Your task to perform on an android device: Show me popular videos on Youtube Image 0: 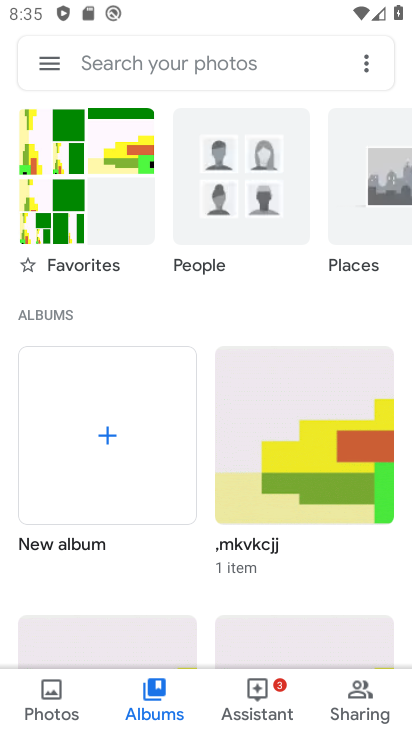
Step 0: press home button
Your task to perform on an android device: Show me popular videos on Youtube Image 1: 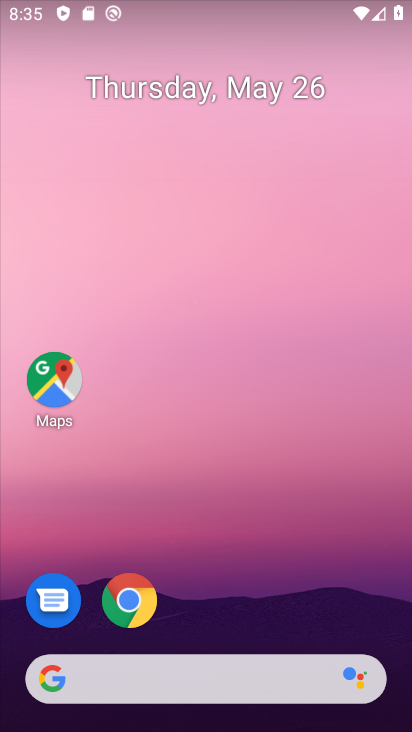
Step 1: drag from (217, 622) to (219, 246)
Your task to perform on an android device: Show me popular videos on Youtube Image 2: 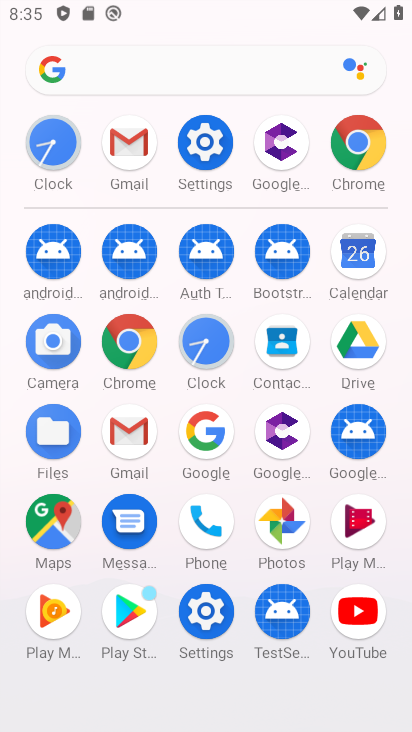
Step 2: click (368, 616)
Your task to perform on an android device: Show me popular videos on Youtube Image 3: 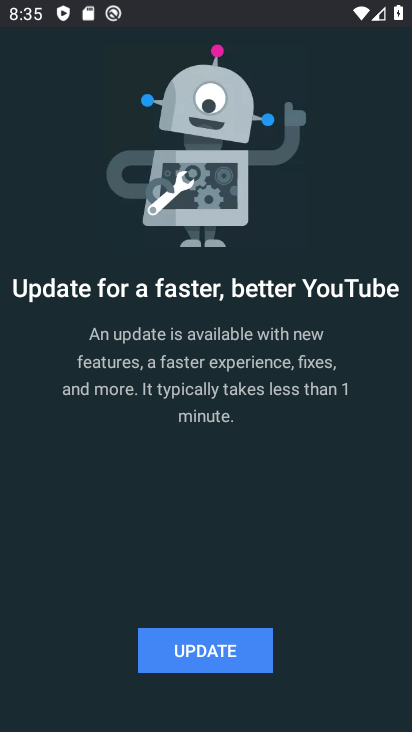
Step 3: click (239, 642)
Your task to perform on an android device: Show me popular videos on Youtube Image 4: 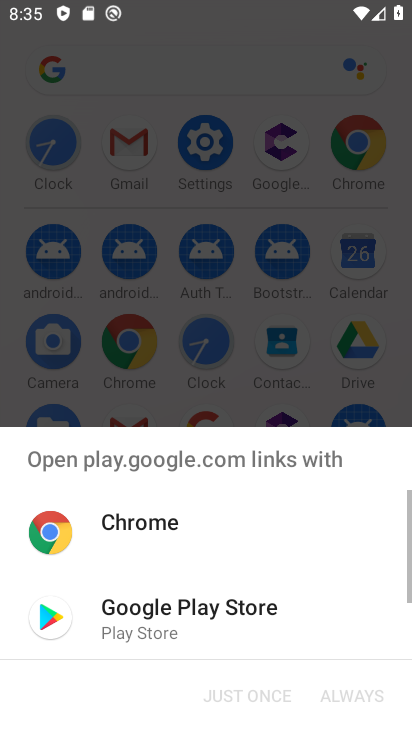
Step 4: click (211, 624)
Your task to perform on an android device: Show me popular videos on Youtube Image 5: 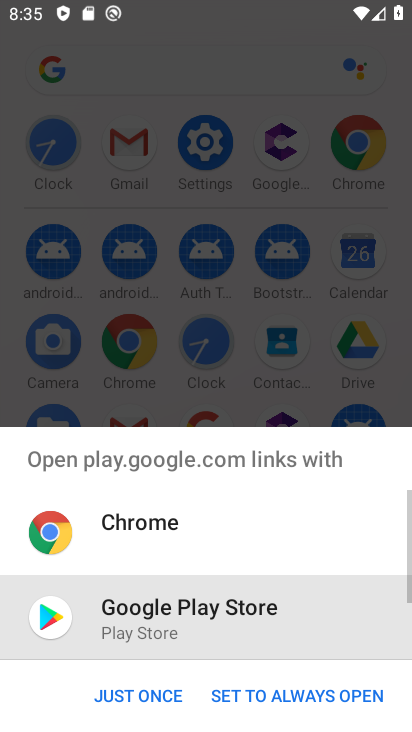
Step 5: click (132, 705)
Your task to perform on an android device: Show me popular videos on Youtube Image 6: 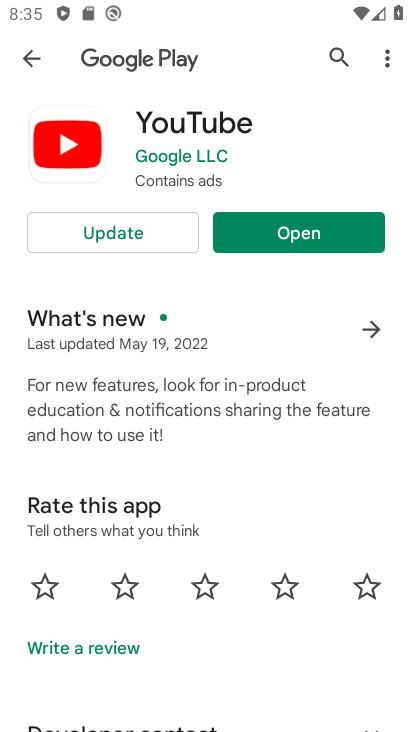
Step 6: click (166, 230)
Your task to perform on an android device: Show me popular videos on Youtube Image 7: 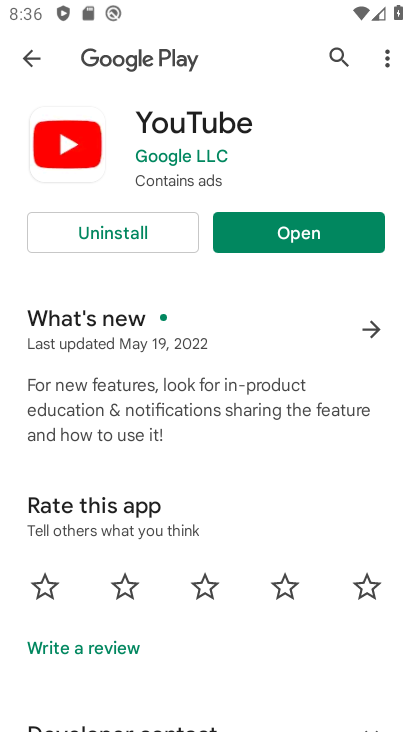
Step 7: click (308, 215)
Your task to perform on an android device: Show me popular videos on Youtube Image 8: 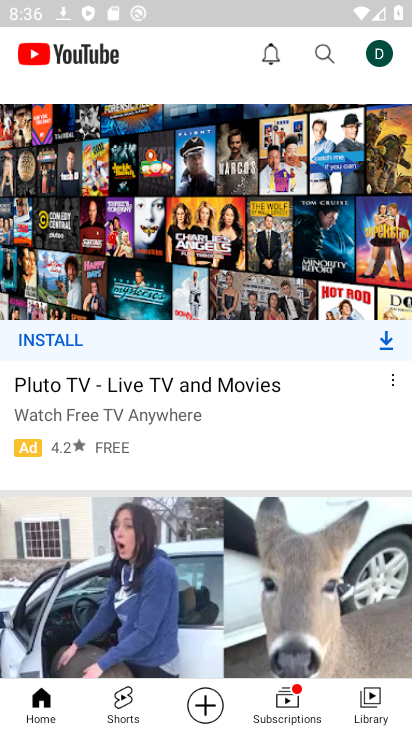
Step 8: drag from (95, 130) to (177, 598)
Your task to perform on an android device: Show me popular videos on Youtube Image 9: 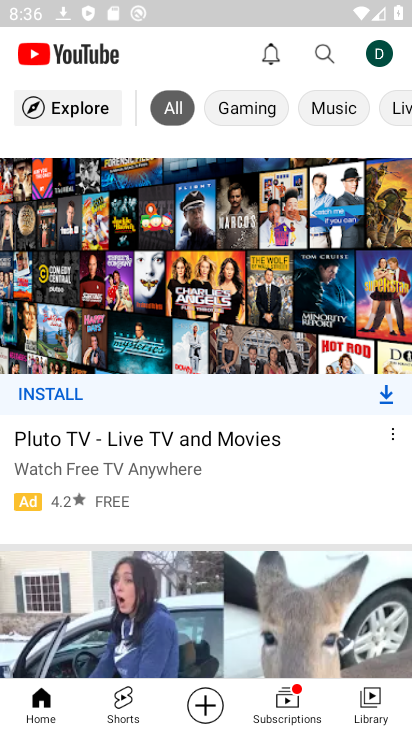
Step 9: click (56, 112)
Your task to perform on an android device: Show me popular videos on Youtube Image 10: 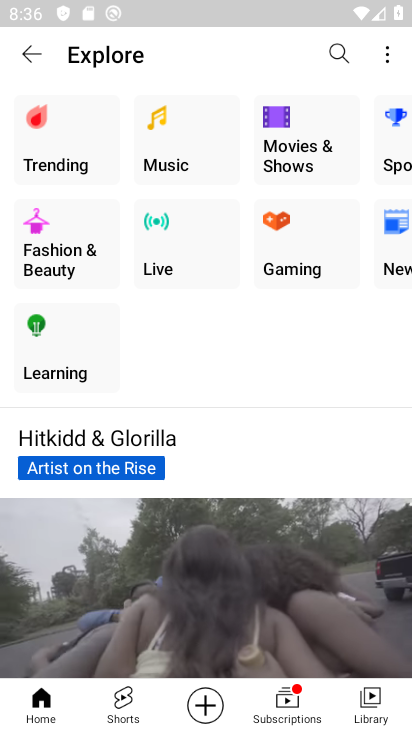
Step 10: click (59, 145)
Your task to perform on an android device: Show me popular videos on Youtube Image 11: 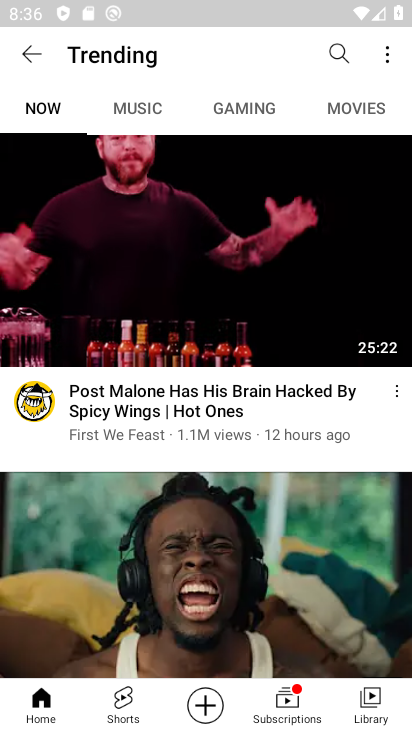
Step 11: task complete